Your task to perform on an android device: Go to accessibility settings Image 0: 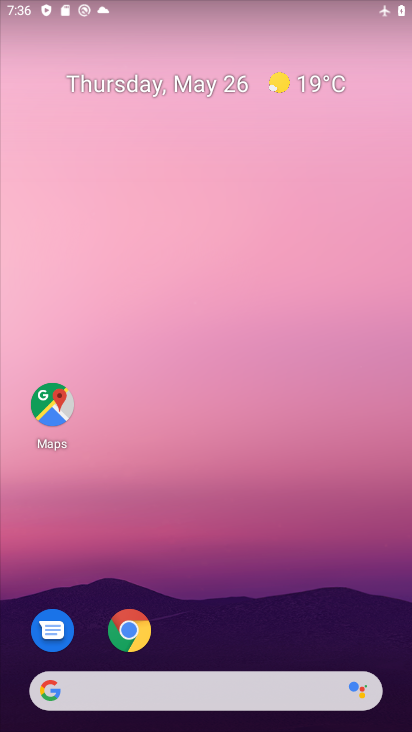
Step 0: drag from (257, 633) to (147, 123)
Your task to perform on an android device: Go to accessibility settings Image 1: 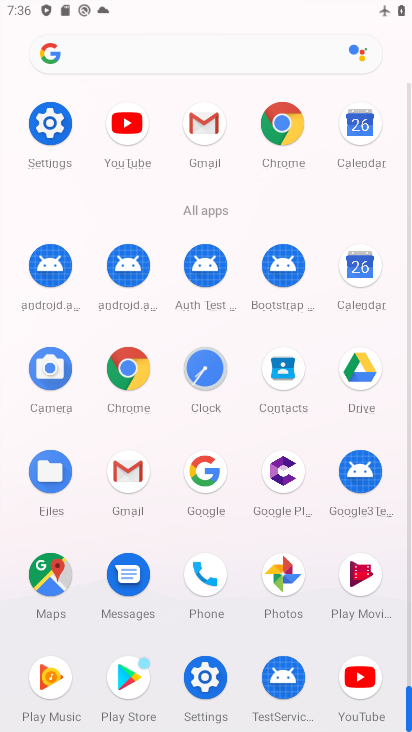
Step 1: click (49, 124)
Your task to perform on an android device: Go to accessibility settings Image 2: 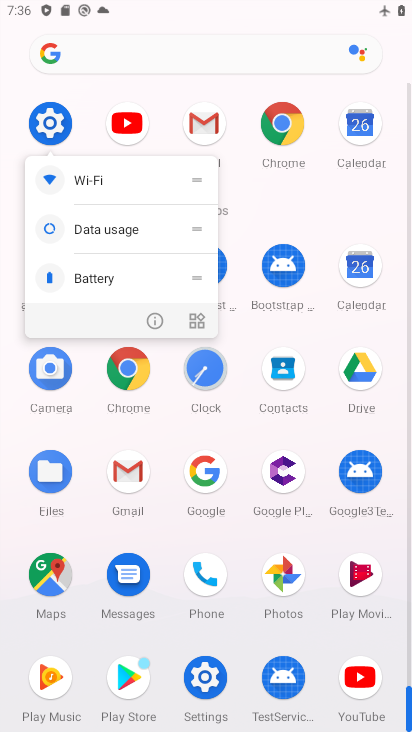
Step 2: click (49, 124)
Your task to perform on an android device: Go to accessibility settings Image 3: 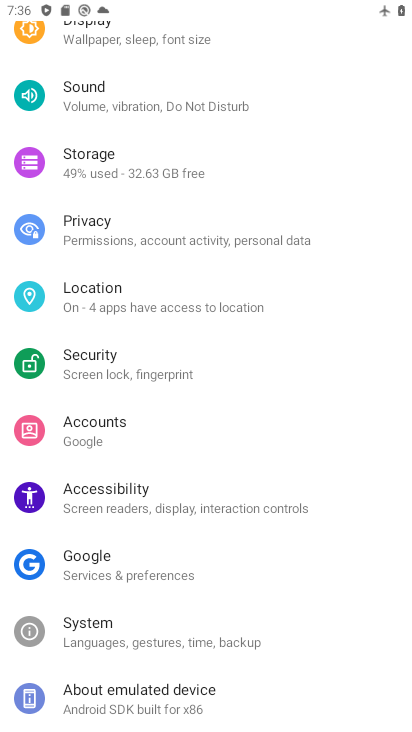
Step 3: click (101, 496)
Your task to perform on an android device: Go to accessibility settings Image 4: 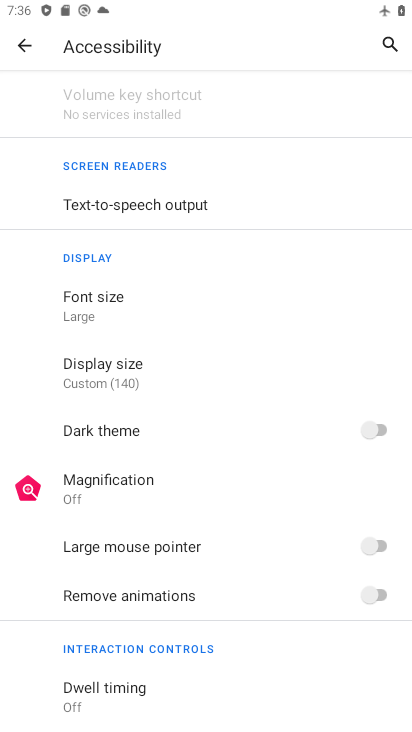
Step 4: task complete